Your task to perform on an android device: Go to Google Image 0: 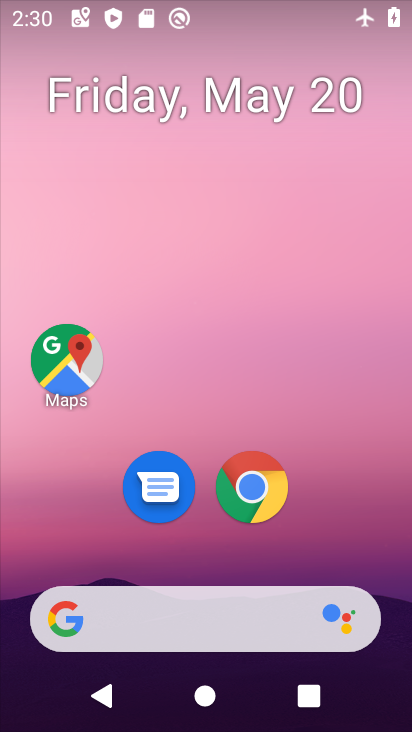
Step 0: drag from (337, 547) to (257, 32)
Your task to perform on an android device: Go to Google Image 1: 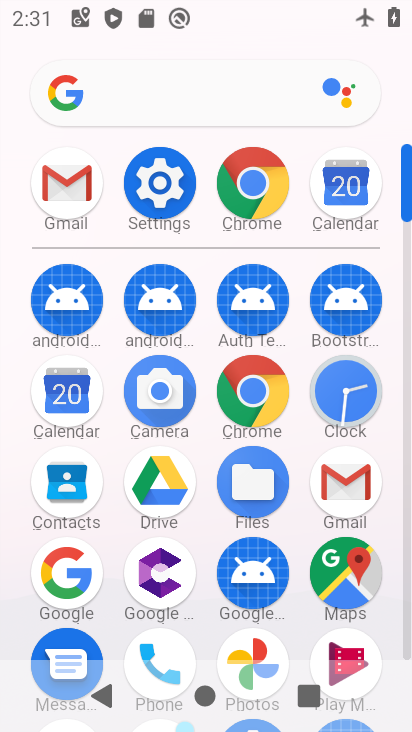
Step 1: click (66, 558)
Your task to perform on an android device: Go to Google Image 2: 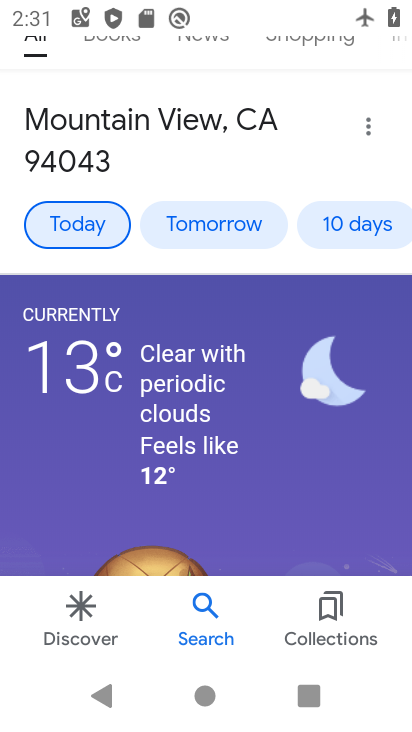
Step 2: task complete